Your task to perform on an android device: What's on the menu at Papa John's? Image 0: 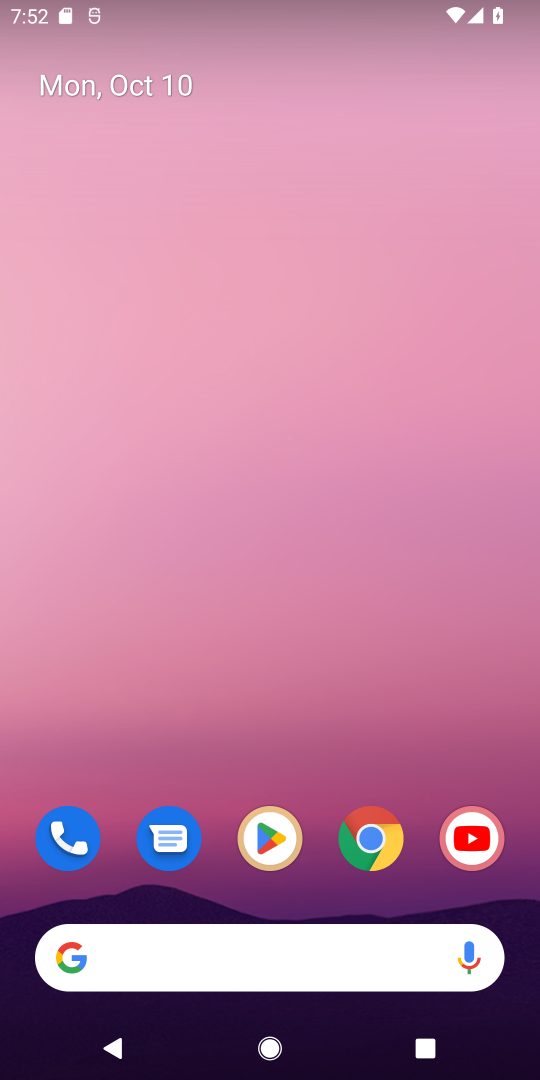
Step 0: click (369, 841)
Your task to perform on an android device: What's on the menu at Papa John's? Image 1: 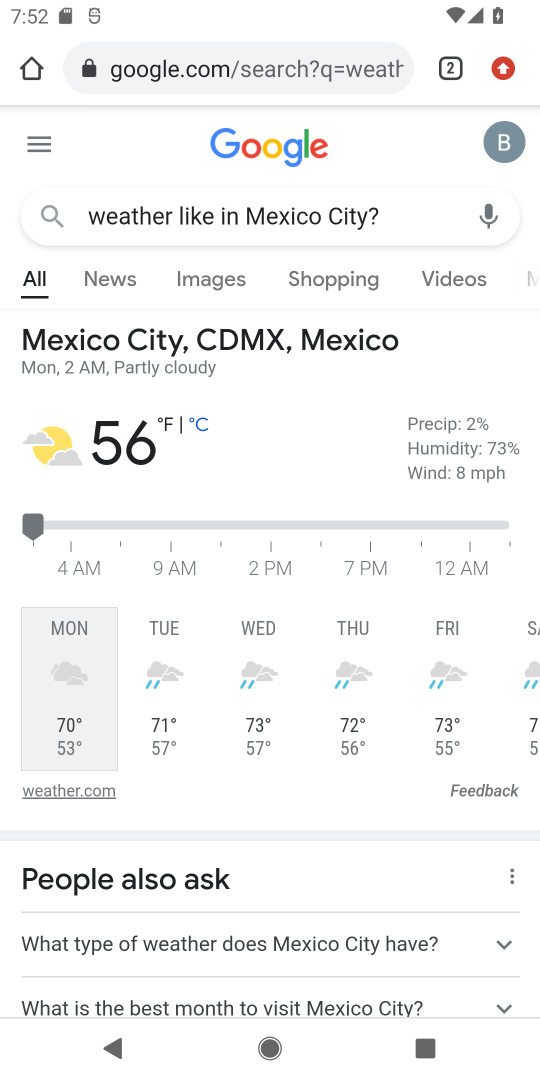
Step 1: click (217, 47)
Your task to perform on an android device: What's on the menu at Papa John's? Image 2: 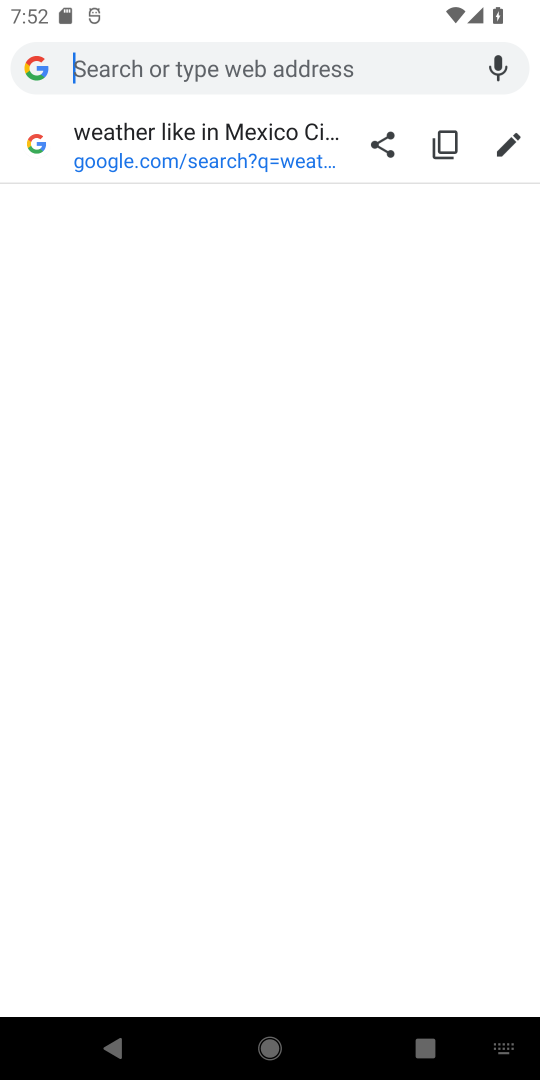
Step 2: type "menu at papa john's?"
Your task to perform on an android device: What's on the menu at Papa John's? Image 3: 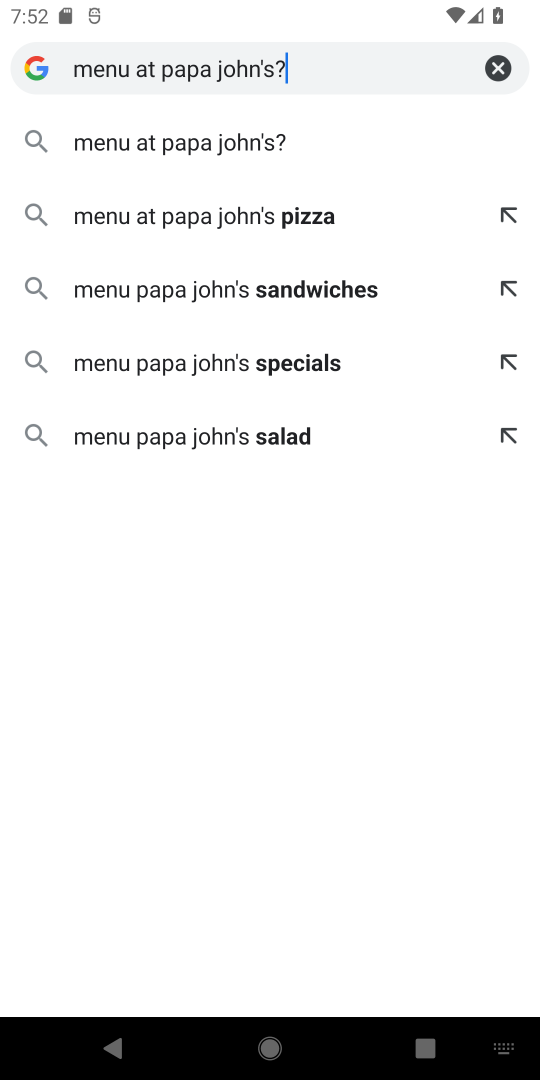
Step 3: click (137, 146)
Your task to perform on an android device: What's on the menu at Papa John's? Image 4: 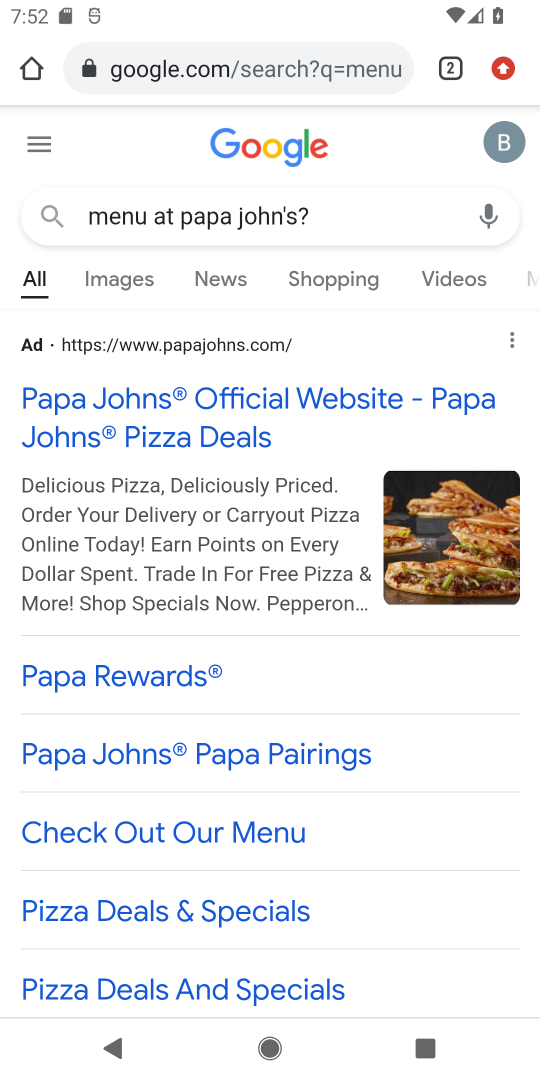
Step 4: click (90, 833)
Your task to perform on an android device: What's on the menu at Papa John's? Image 5: 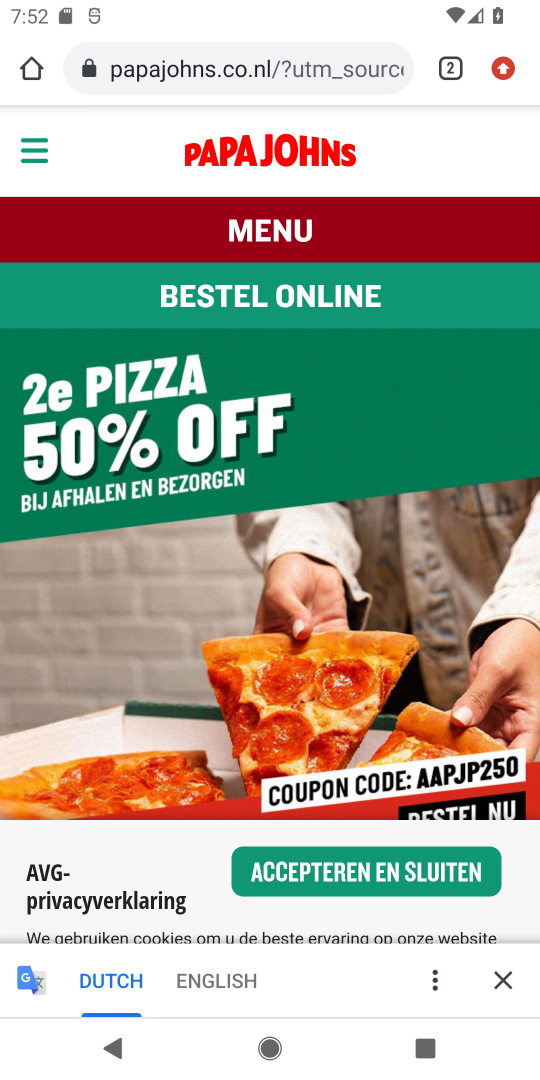
Step 5: click (507, 973)
Your task to perform on an android device: What's on the menu at Papa John's? Image 6: 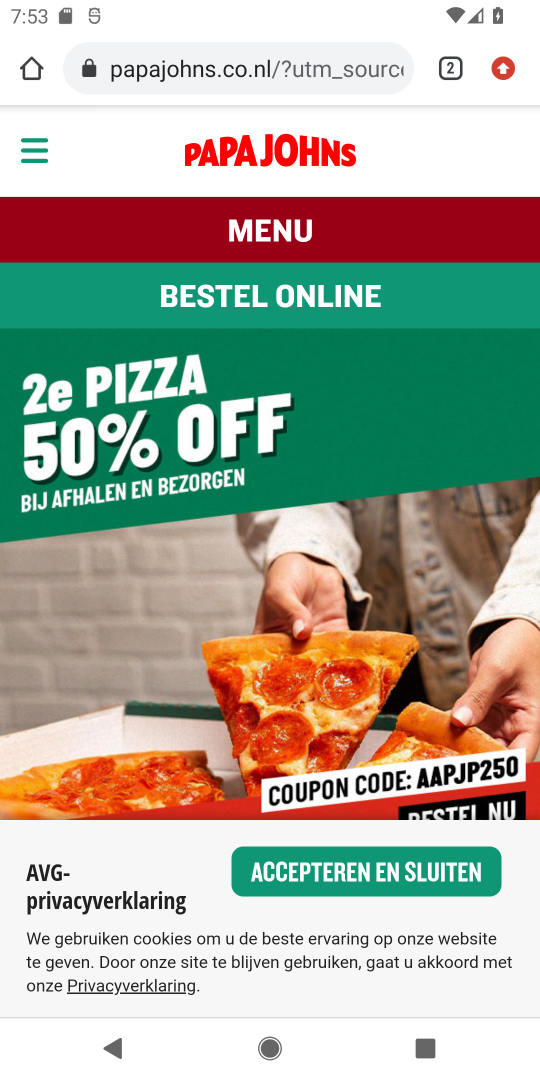
Step 6: task complete